Your task to perform on an android device: change notifications settings Image 0: 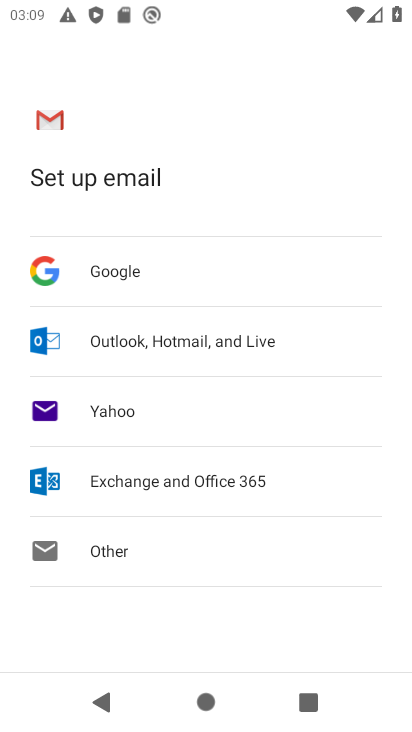
Step 0: press home button
Your task to perform on an android device: change notifications settings Image 1: 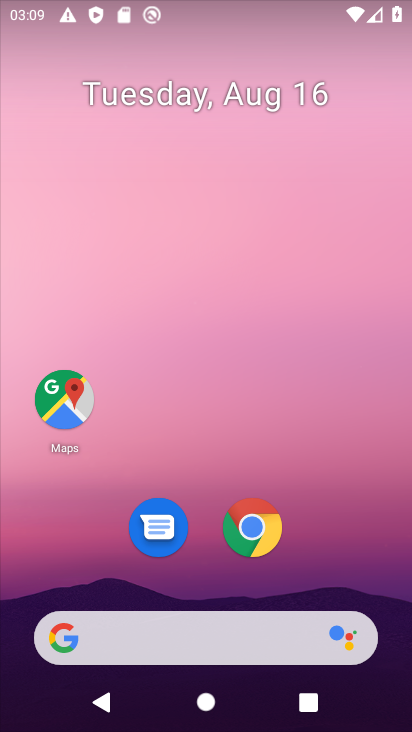
Step 1: drag from (206, 577) to (262, 0)
Your task to perform on an android device: change notifications settings Image 2: 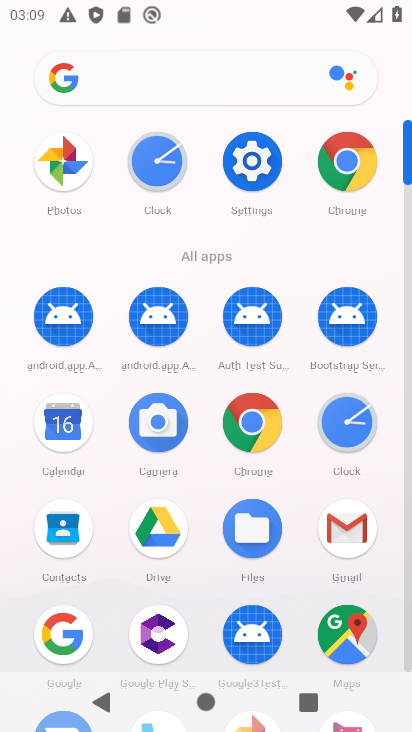
Step 2: click (246, 152)
Your task to perform on an android device: change notifications settings Image 3: 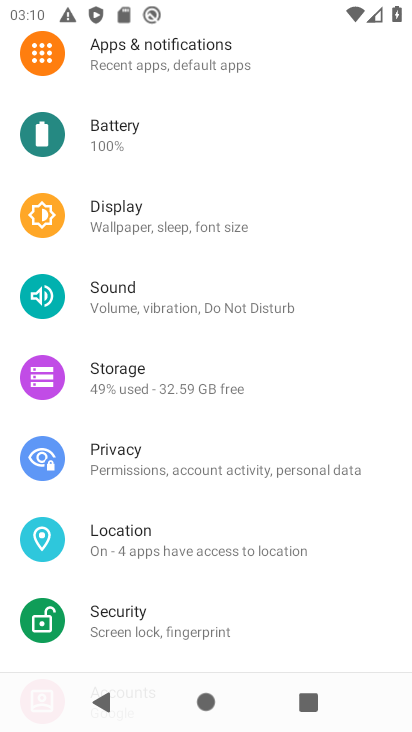
Step 3: click (218, 46)
Your task to perform on an android device: change notifications settings Image 4: 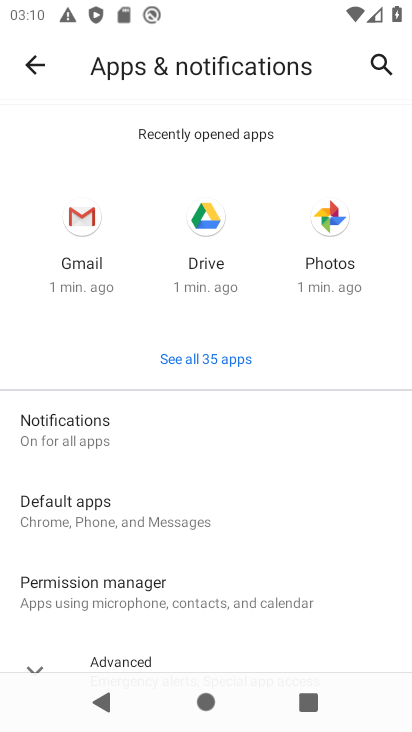
Step 4: click (119, 428)
Your task to perform on an android device: change notifications settings Image 5: 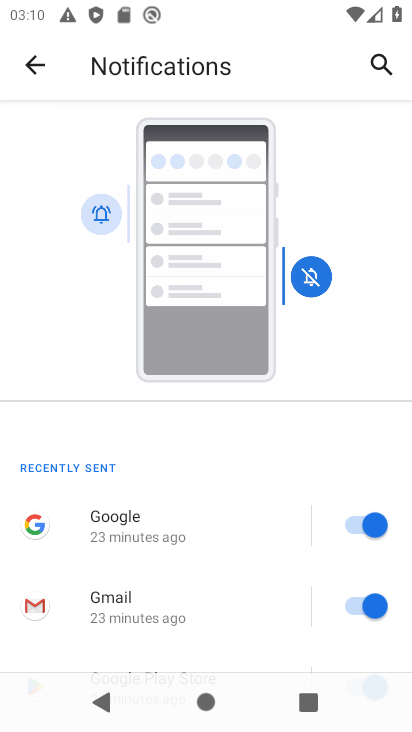
Step 5: drag from (217, 609) to (273, 178)
Your task to perform on an android device: change notifications settings Image 6: 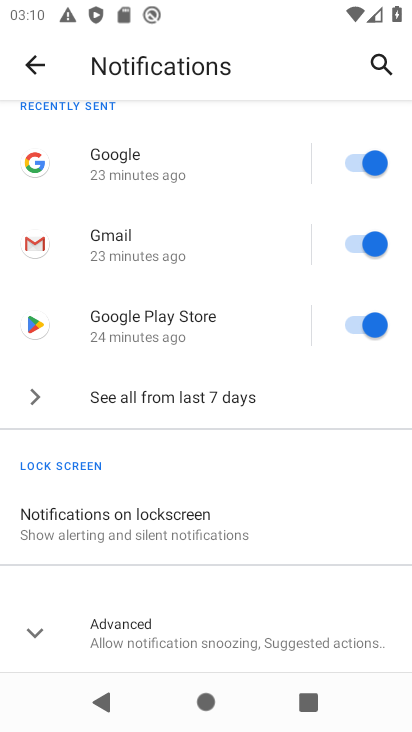
Step 6: click (33, 628)
Your task to perform on an android device: change notifications settings Image 7: 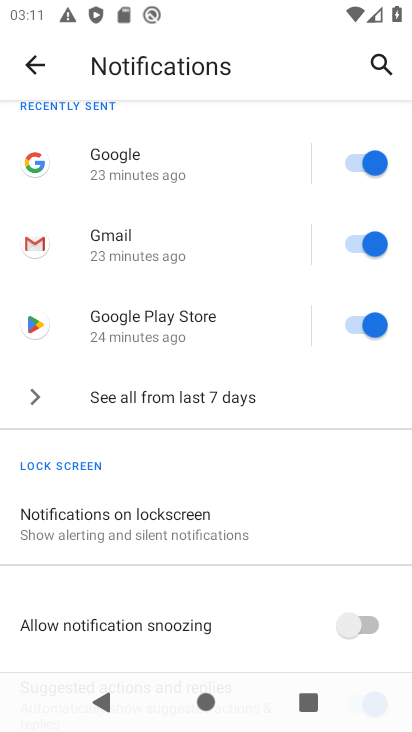
Step 7: task complete